Your task to perform on an android device: Open internet settings Image 0: 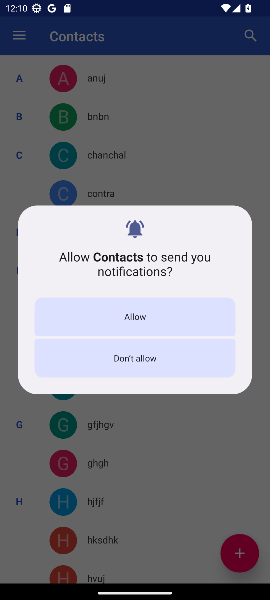
Step 0: press home button
Your task to perform on an android device: Open internet settings Image 1: 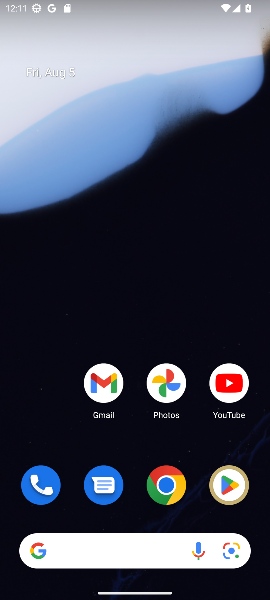
Step 1: drag from (54, 423) to (54, 106)
Your task to perform on an android device: Open internet settings Image 2: 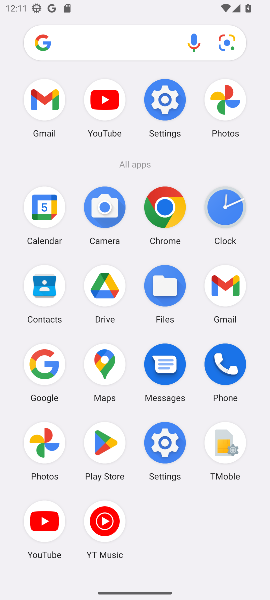
Step 2: click (163, 101)
Your task to perform on an android device: Open internet settings Image 3: 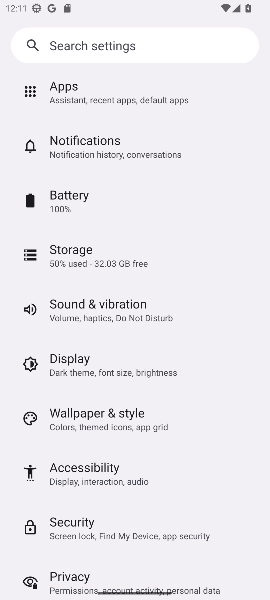
Step 3: drag from (156, 147) to (148, 287)
Your task to perform on an android device: Open internet settings Image 4: 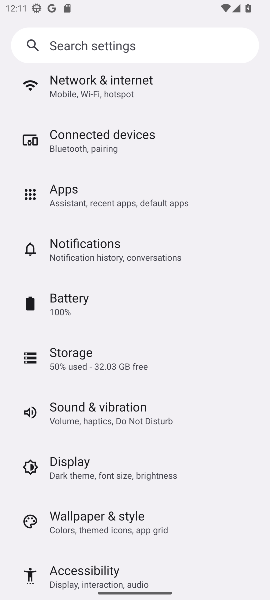
Step 4: click (104, 80)
Your task to perform on an android device: Open internet settings Image 5: 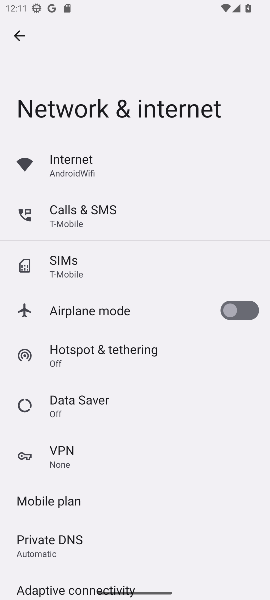
Step 5: click (69, 158)
Your task to perform on an android device: Open internet settings Image 6: 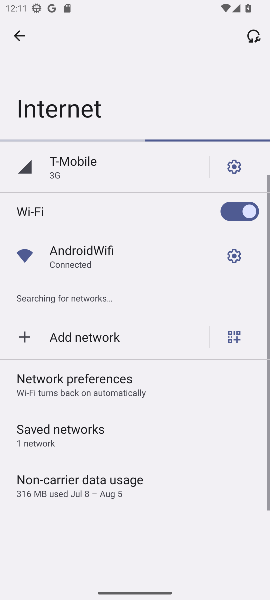
Step 6: task complete